Your task to perform on an android device: What's the weather today? Image 0: 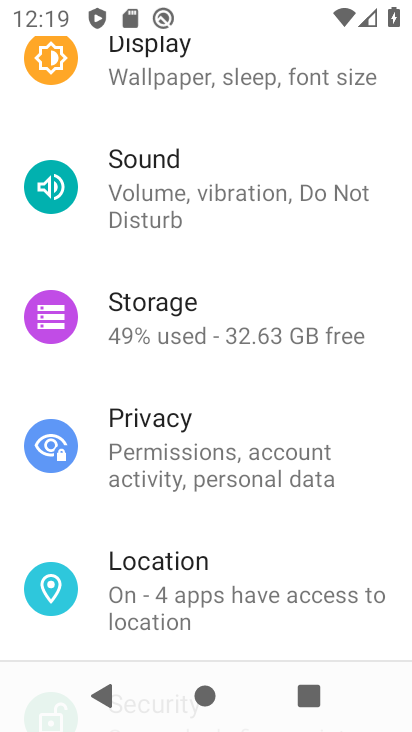
Step 0: press home button
Your task to perform on an android device: What's the weather today? Image 1: 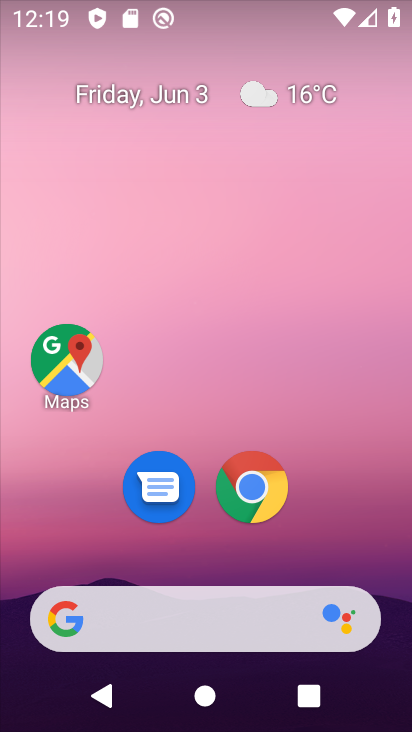
Step 1: click (252, 109)
Your task to perform on an android device: What's the weather today? Image 2: 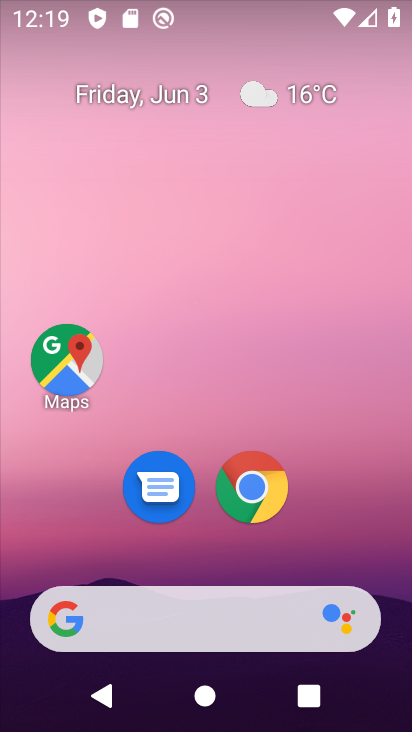
Step 2: click (293, 99)
Your task to perform on an android device: What's the weather today? Image 3: 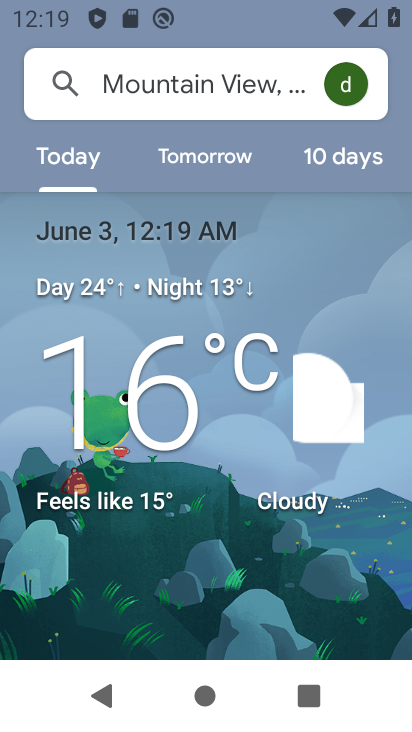
Step 3: task complete